Your task to perform on an android device: Open ESPN.com Image 0: 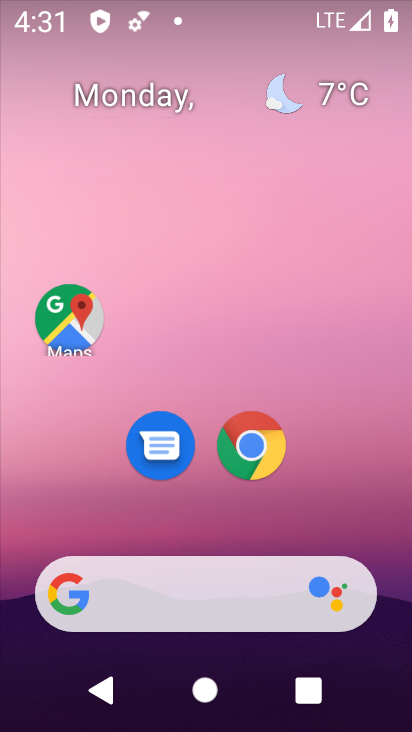
Step 0: click (251, 443)
Your task to perform on an android device: Open ESPN.com Image 1: 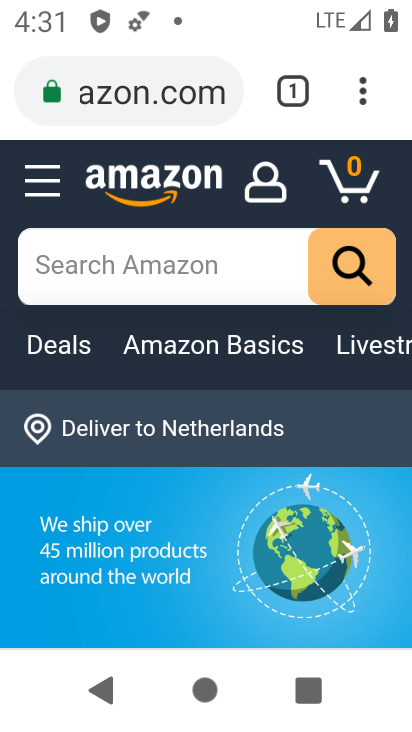
Step 1: click (300, 67)
Your task to perform on an android device: Open ESPN.com Image 2: 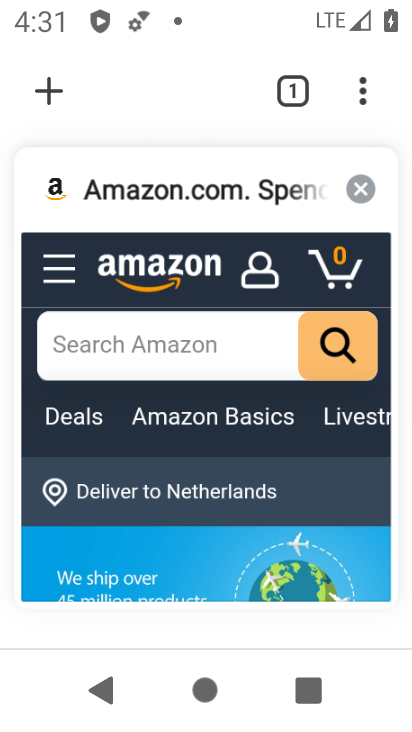
Step 2: click (37, 88)
Your task to perform on an android device: Open ESPN.com Image 3: 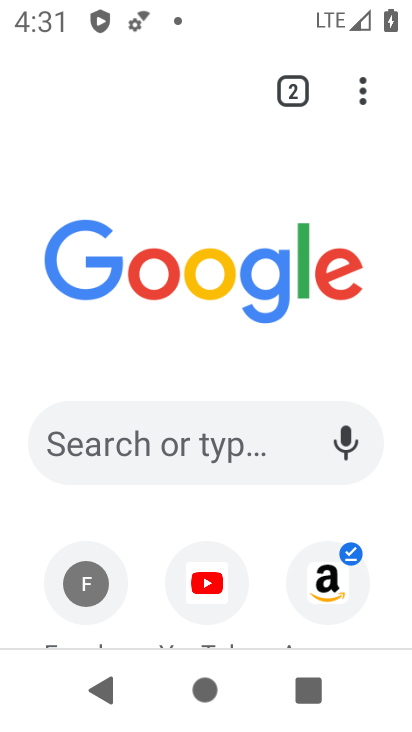
Step 3: drag from (169, 565) to (251, 285)
Your task to perform on an android device: Open ESPN.com Image 4: 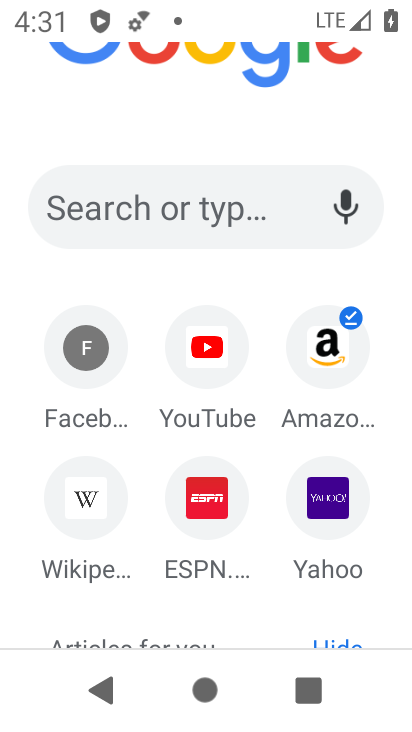
Step 4: click (230, 501)
Your task to perform on an android device: Open ESPN.com Image 5: 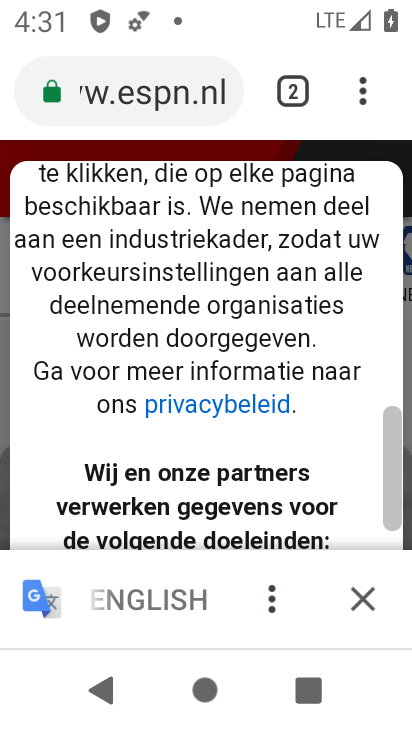
Step 5: click (374, 623)
Your task to perform on an android device: Open ESPN.com Image 6: 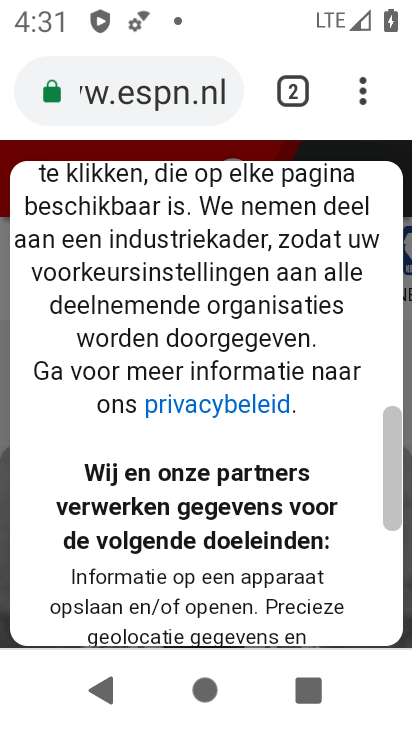
Step 6: drag from (289, 610) to (322, 272)
Your task to perform on an android device: Open ESPN.com Image 7: 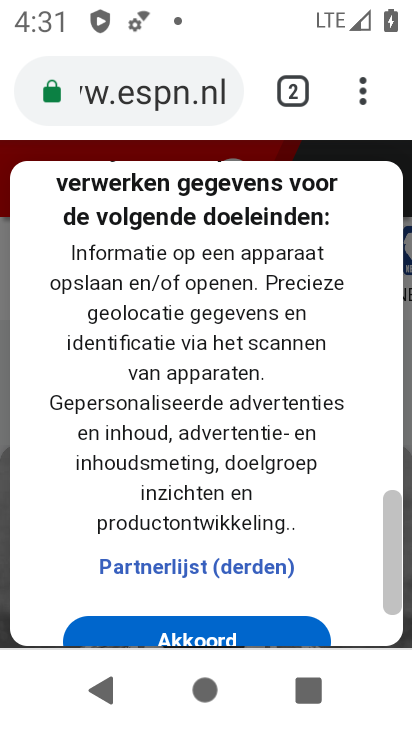
Step 7: drag from (208, 593) to (212, 366)
Your task to perform on an android device: Open ESPN.com Image 8: 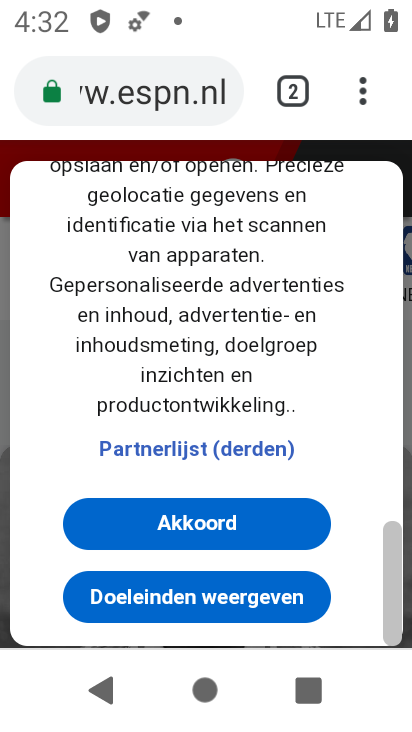
Step 8: click (212, 366)
Your task to perform on an android device: Open ESPN.com Image 9: 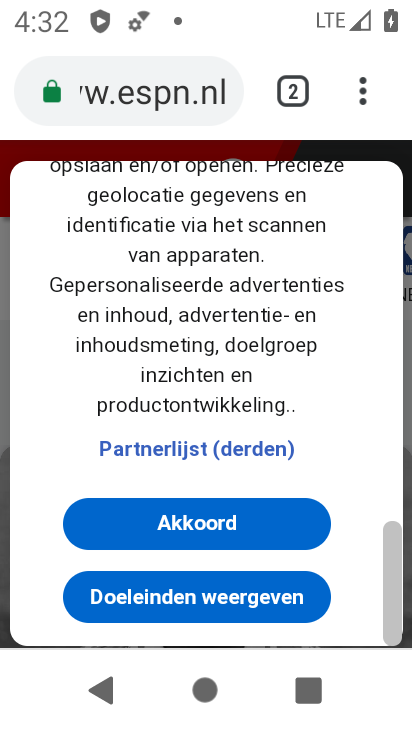
Step 9: click (218, 541)
Your task to perform on an android device: Open ESPN.com Image 10: 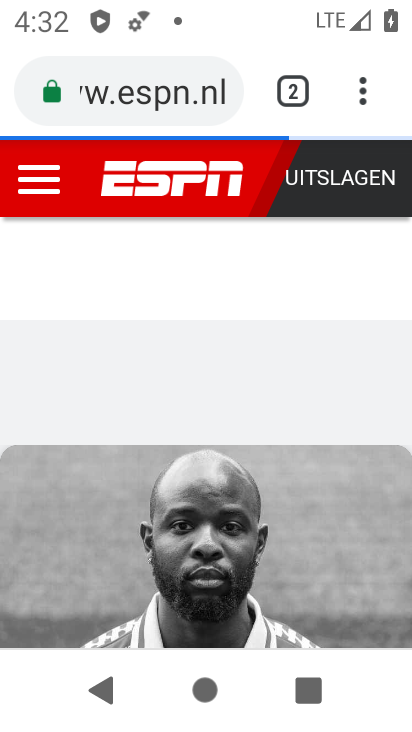
Step 10: task complete